Your task to perform on an android device: open sync settings in chrome Image 0: 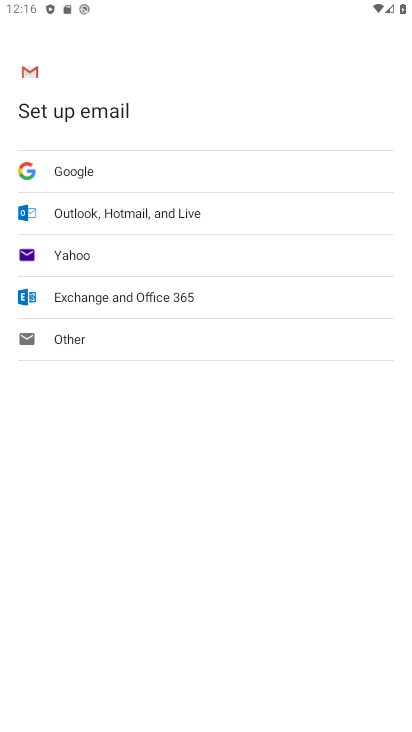
Step 0: press home button
Your task to perform on an android device: open sync settings in chrome Image 1: 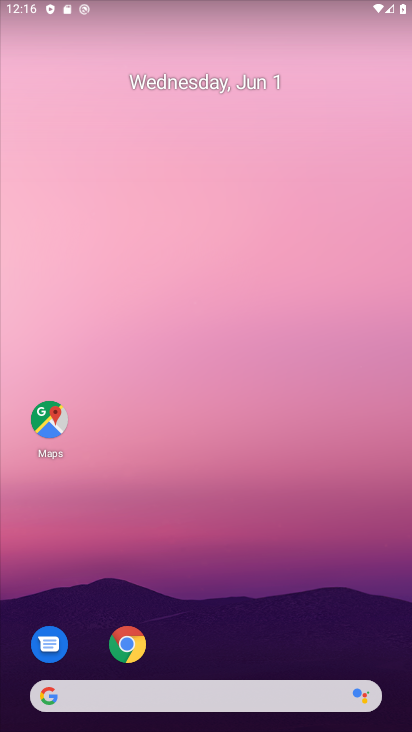
Step 1: click (134, 637)
Your task to perform on an android device: open sync settings in chrome Image 2: 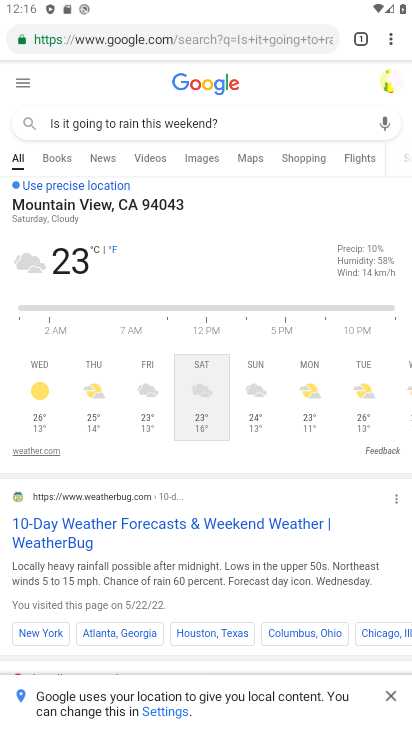
Step 2: drag from (392, 43) to (284, 435)
Your task to perform on an android device: open sync settings in chrome Image 3: 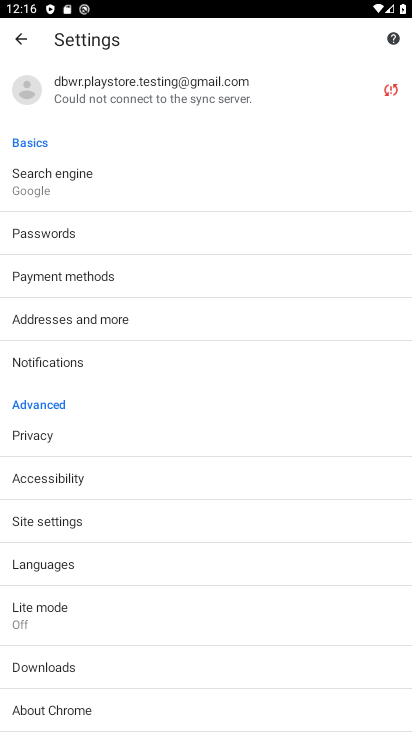
Step 3: click (55, 115)
Your task to perform on an android device: open sync settings in chrome Image 4: 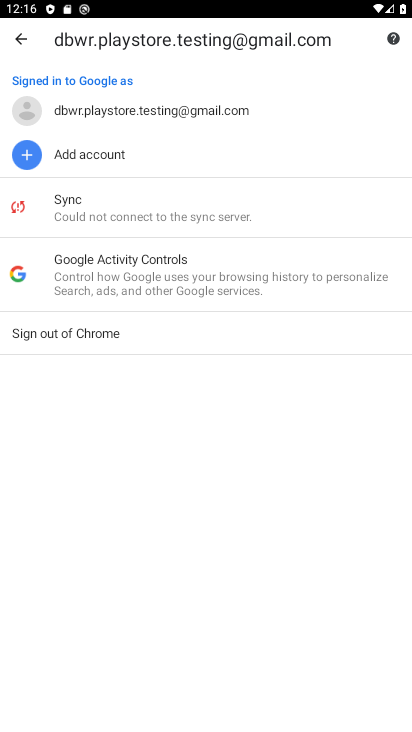
Step 4: click (70, 222)
Your task to perform on an android device: open sync settings in chrome Image 5: 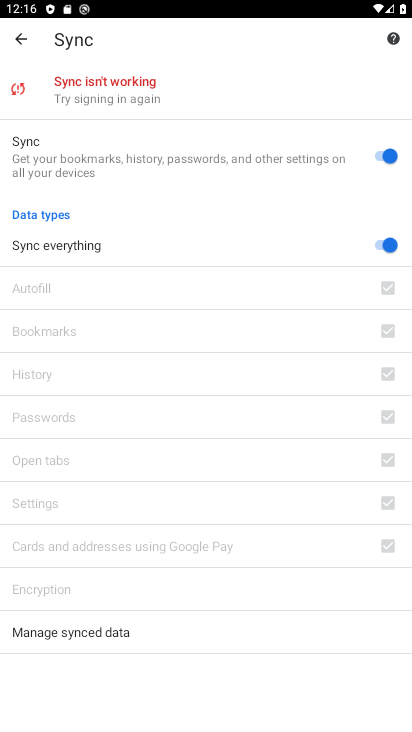
Step 5: task complete